Your task to perform on an android device: toggle priority inbox in the gmail app Image 0: 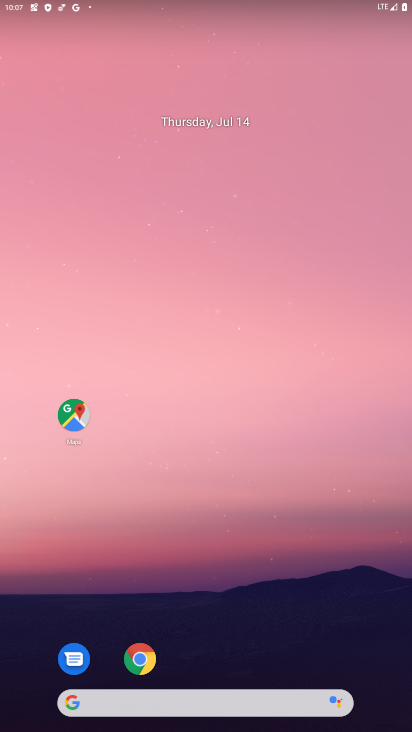
Step 0: drag from (254, 531) to (195, 120)
Your task to perform on an android device: toggle priority inbox in the gmail app Image 1: 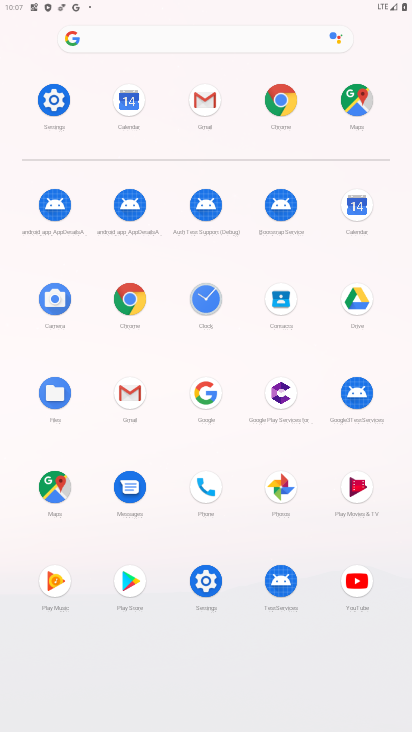
Step 1: click (196, 108)
Your task to perform on an android device: toggle priority inbox in the gmail app Image 2: 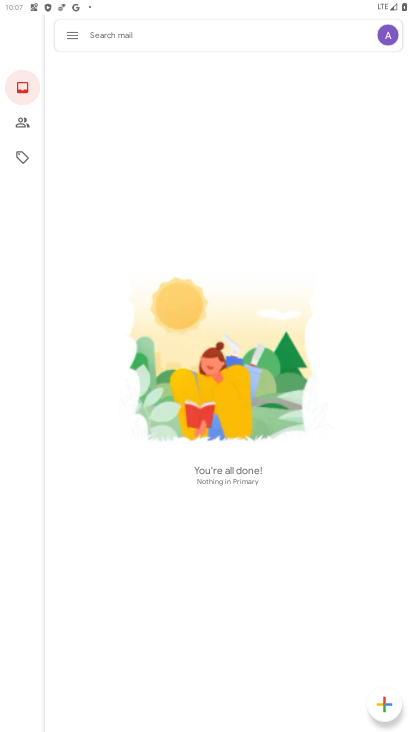
Step 2: click (72, 51)
Your task to perform on an android device: toggle priority inbox in the gmail app Image 3: 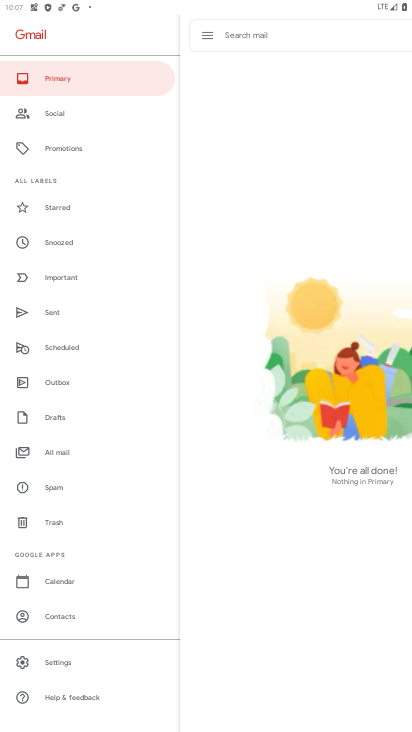
Step 3: drag from (106, 424) to (154, 208)
Your task to perform on an android device: toggle priority inbox in the gmail app Image 4: 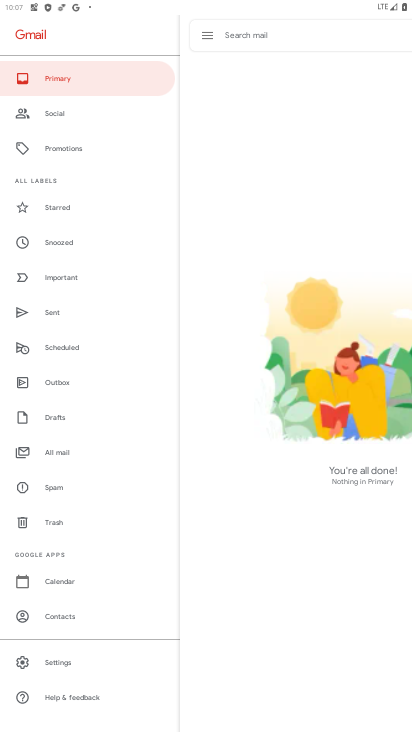
Step 4: click (66, 659)
Your task to perform on an android device: toggle priority inbox in the gmail app Image 5: 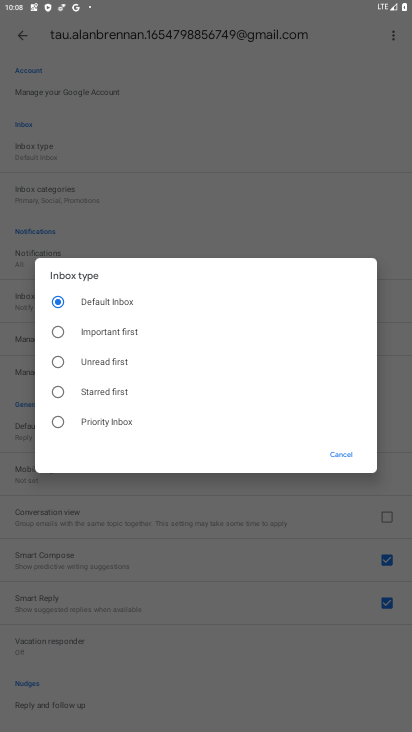
Step 5: click (105, 424)
Your task to perform on an android device: toggle priority inbox in the gmail app Image 6: 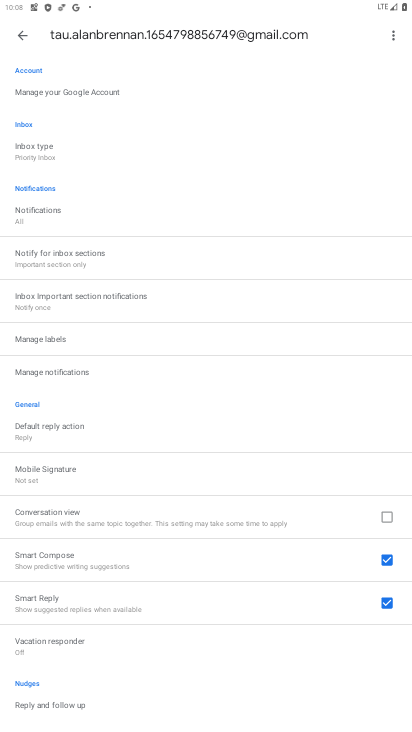
Step 6: task complete